Your task to perform on an android device: Open Google Chrome and click the shortcut for Amazon.com Image 0: 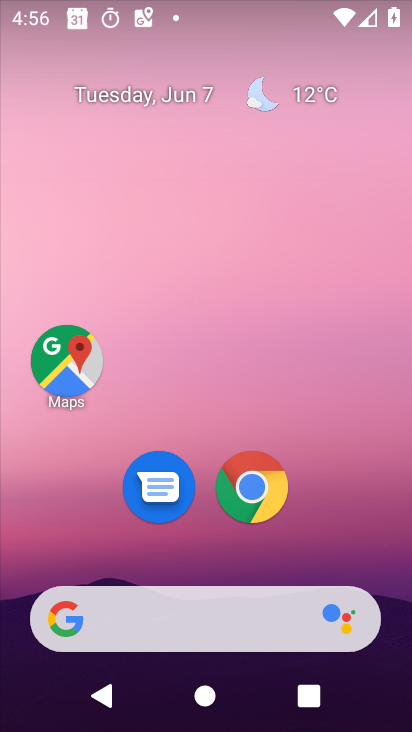
Step 0: click (244, 472)
Your task to perform on an android device: Open Google Chrome and click the shortcut for Amazon.com Image 1: 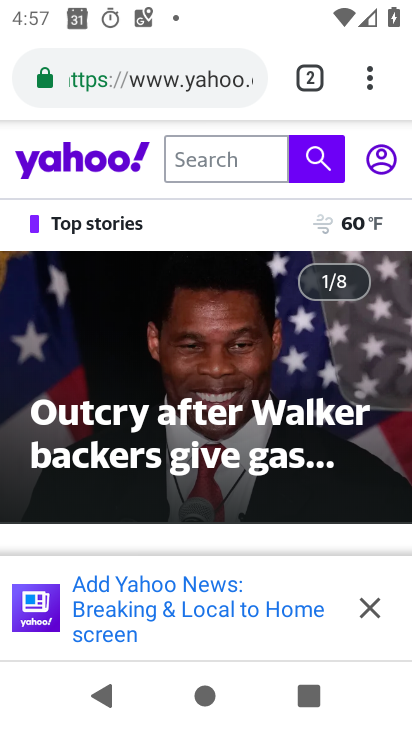
Step 1: click (317, 72)
Your task to perform on an android device: Open Google Chrome and click the shortcut for Amazon.com Image 2: 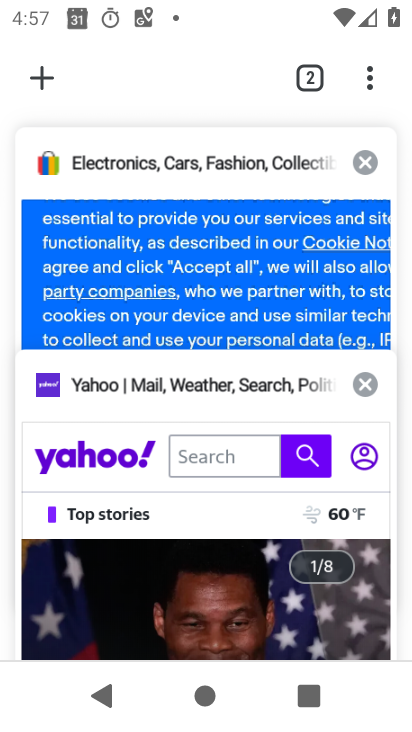
Step 2: click (48, 76)
Your task to perform on an android device: Open Google Chrome and click the shortcut for Amazon.com Image 3: 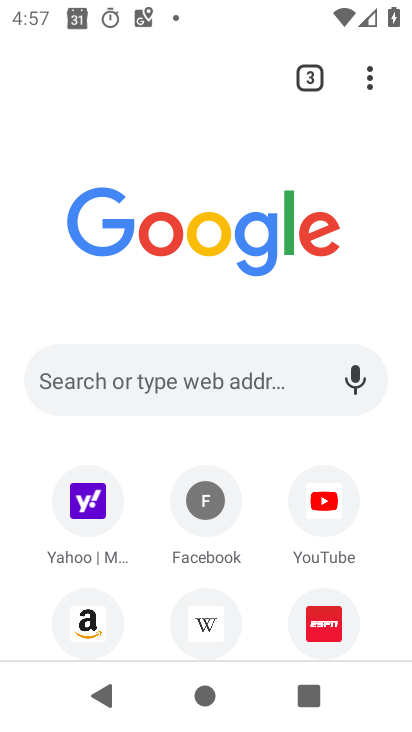
Step 3: click (99, 622)
Your task to perform on an android device: Open Google Chrome and click the shortcut for Amazon.com Image 4: 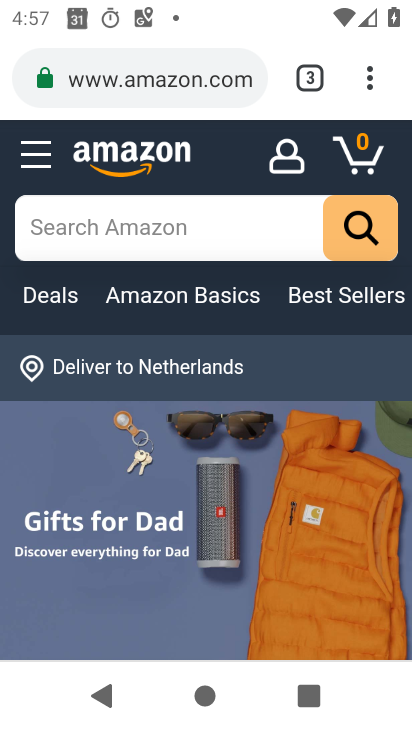
Step 4: task complete